Your task to perform on an android device: open a bookmark in the chrome app Image 0: 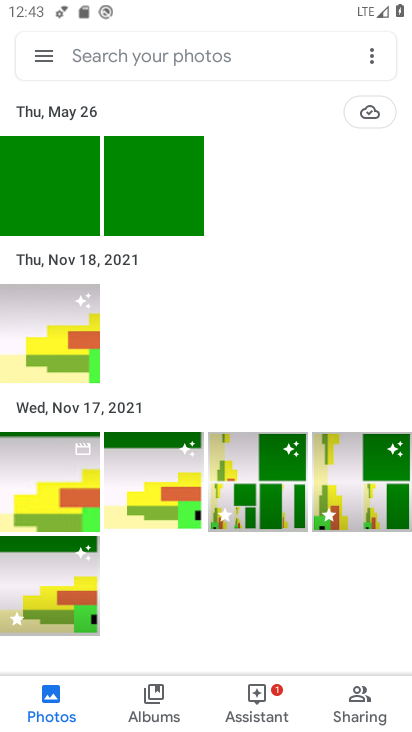
Step 0: press home button
Your task to perform on an android device: open a bookmark in the chrome app Image 1: 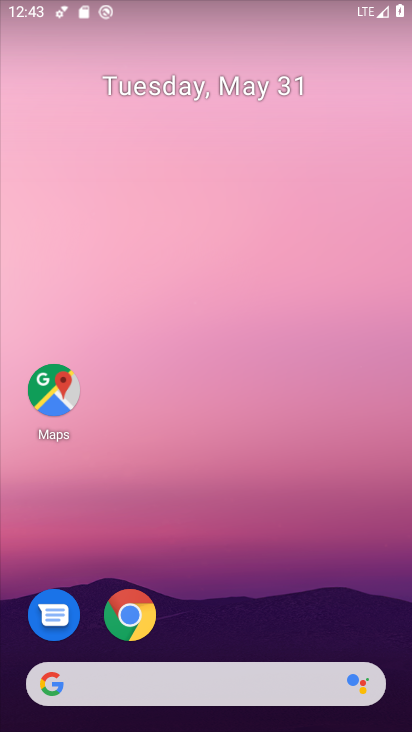
Step 1: click (121, 619)
Your task to perform on an android device: open a bookmark in the chrome app Image 2: 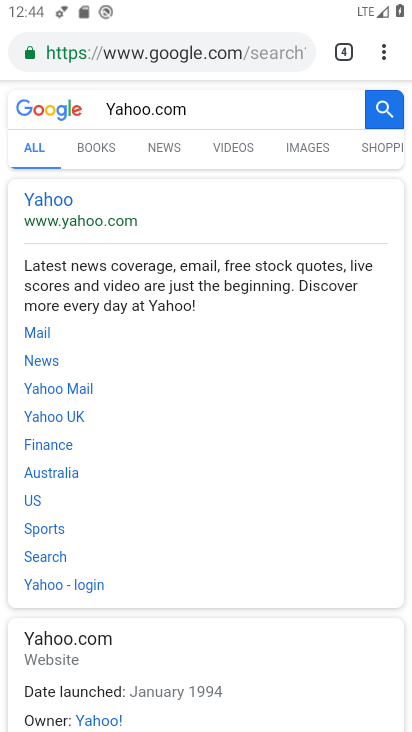
Step 2: click (377, 60)
Your task to perform on an android device: open a bookmark in the chrome app Image 3: 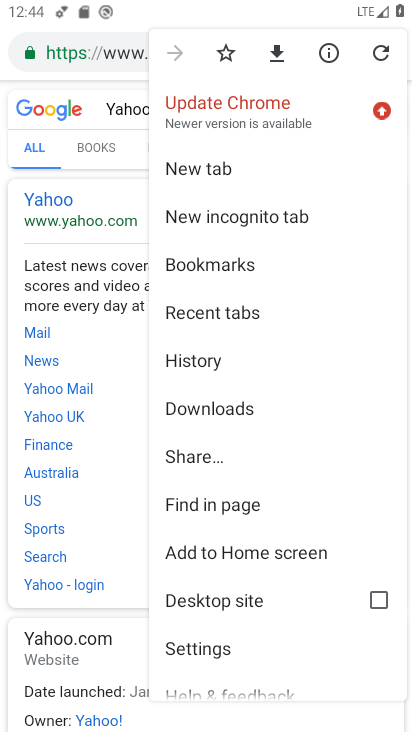
Step 3: click (229, 263)
Your task to perform on an android device: open a bookmark in the chrome app Image 4: 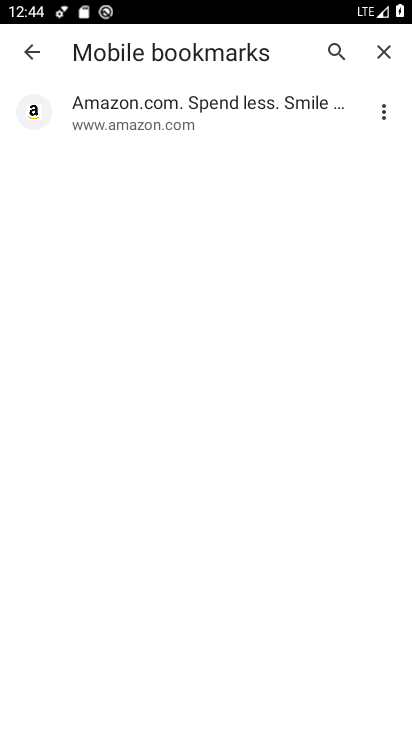
Step 4: click (207, 115)
Your task to perform on an android device: open a bookmark in the chrome app Image 5: 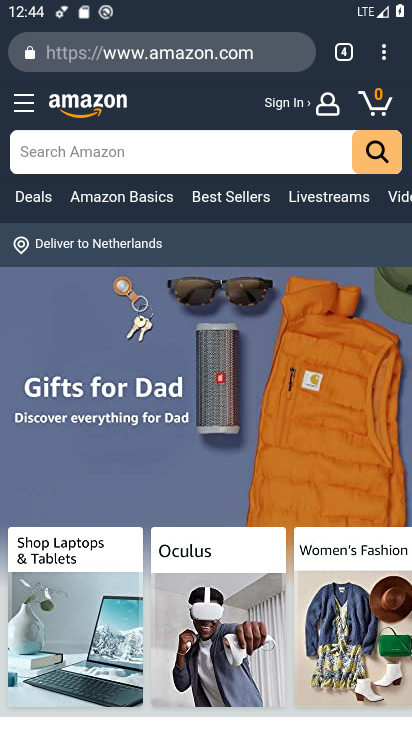
Step 5: task complete